Your task to perform on an android device: Go to display settings Image 0: 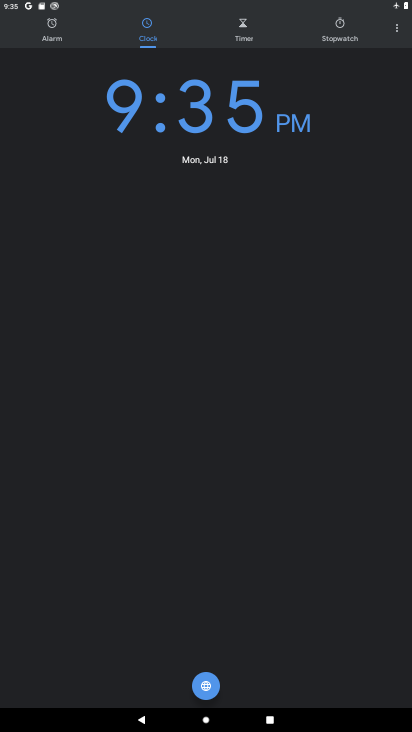
Step 0: press home button
Your task to perform on an android device: Go to display settings Image 1: 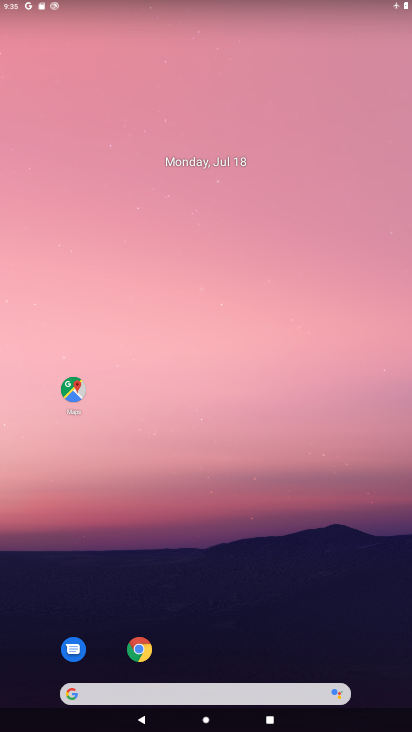
Step 1: drag from (218, 688) to (295, 285)
Your task to perform on an android device: Go to display settings Image 2: 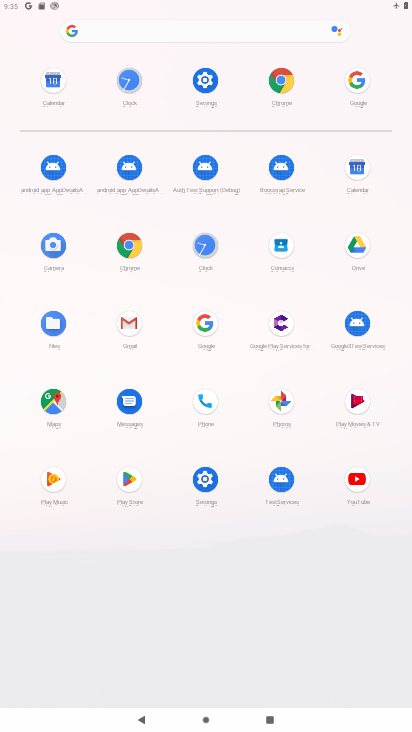
Step 2: click (197, 82)
Your task to perform on an android device: Go to display settings Image 3: 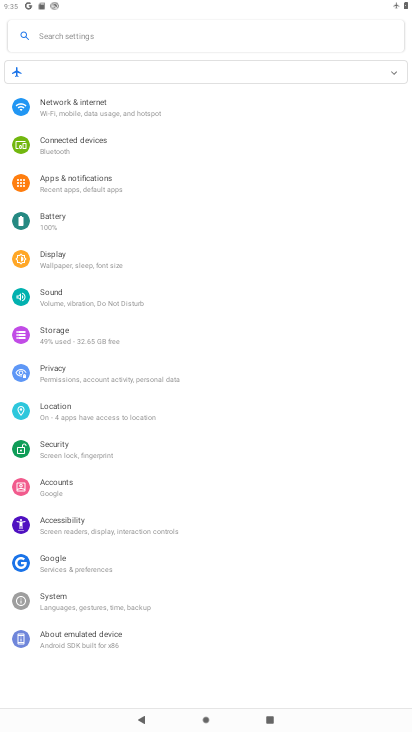
Step 3: click (77, 258)
Your task to perform on an android device: Go to display settings Image 4: 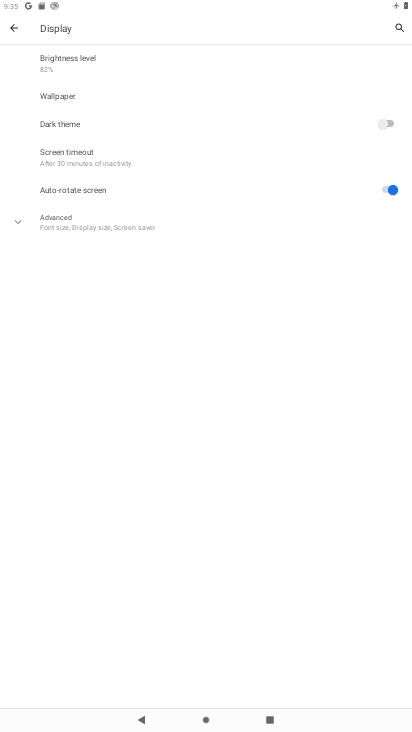
Step 4: click (71, 219)
Your task to perform on an android device: Go to display settings Image 5: 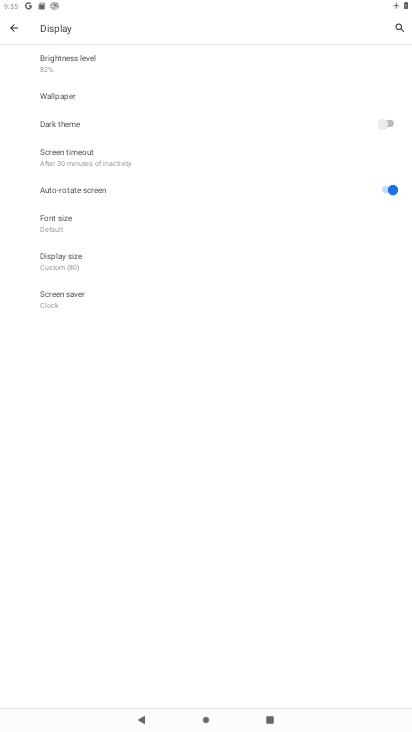
Step 5: task complete